Your task to perform on an android device: turn off location history Image 0: 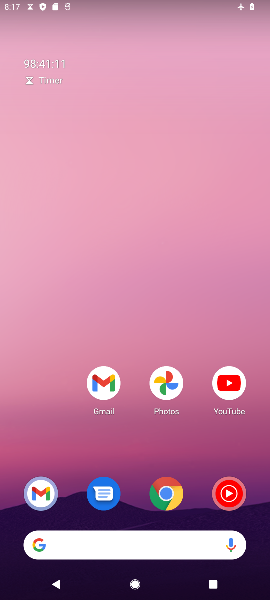
Step 0: drag from (124, 502) to (140, 208)
Your task to perform on an android device: turn off location history Image 1: 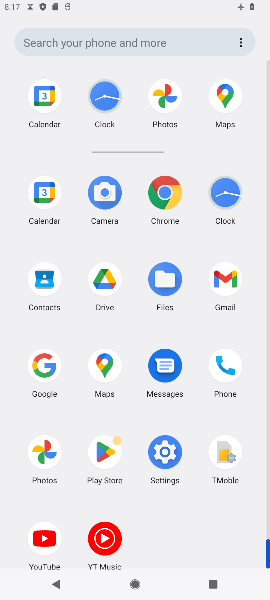
Step 1: click (167, 456)
Your task to perform on an android device: turn off location history Image 2: 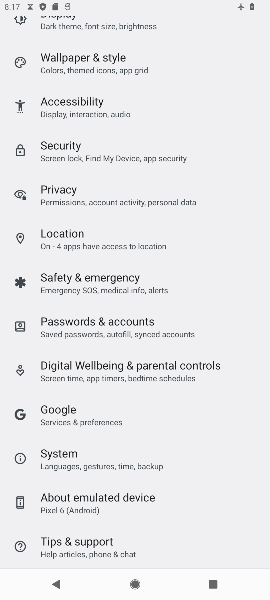
Step 2: drag from (76, 29) to (104, 546)
Your task to perform on an android device: turn off location history Image 3: 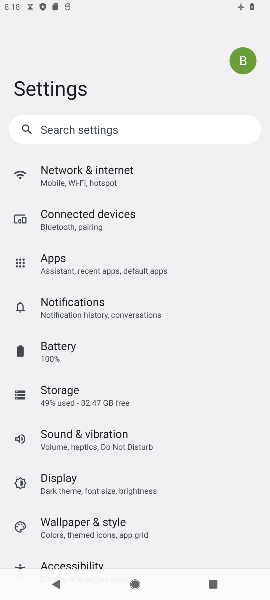
Step 3: drag from (94, 527) to (125, 280)
Your task to perform on an android device: turn off location history Image 4: 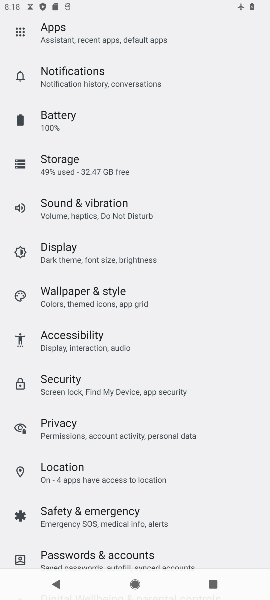
Step 4: click (72, 471)
Your task to perform on an android device: turn off location history Image 5: 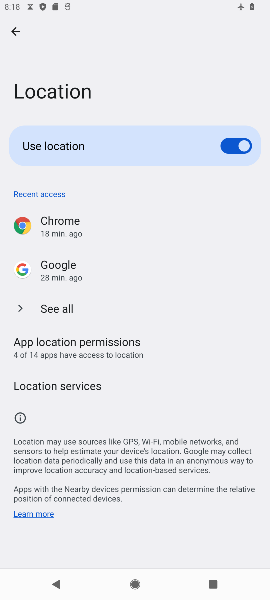
Step 5: click (60, 390)
Your task to perform on an android device: turn off location history Image 6: 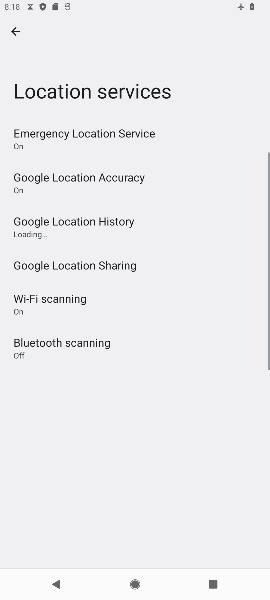
Step 6: click (92, 237)
Your task to perform on an android device: turn off location history Image 7: 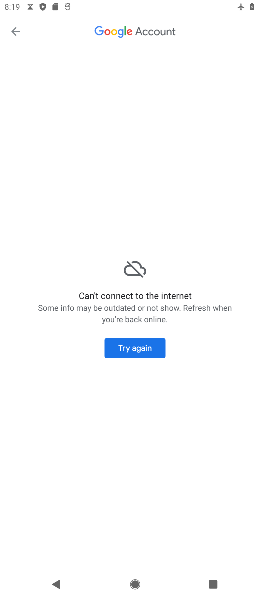
Step 7: task complete